Your task to perform on an android device: Set the phone to "Do not disturb". Image 0: 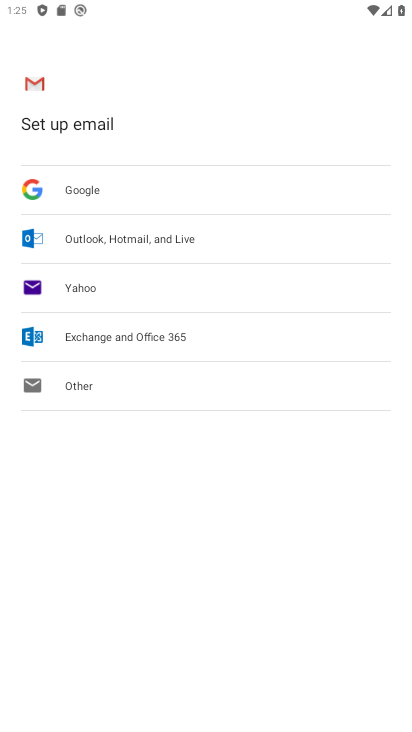
Step 0: press home button
Your task to perform on an android device: Set the phone to "Do not disturb". Image 1: 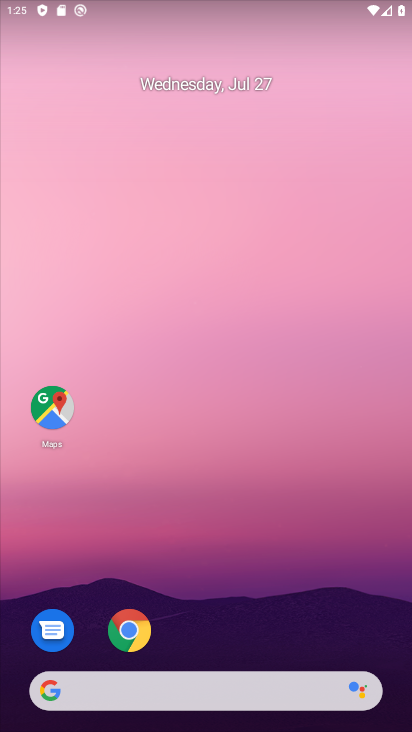
Step 1: drag from (312, 4) to (286, 375)
Your task to perform on an android device: Set the phone to "Do not disturb". Image 2: 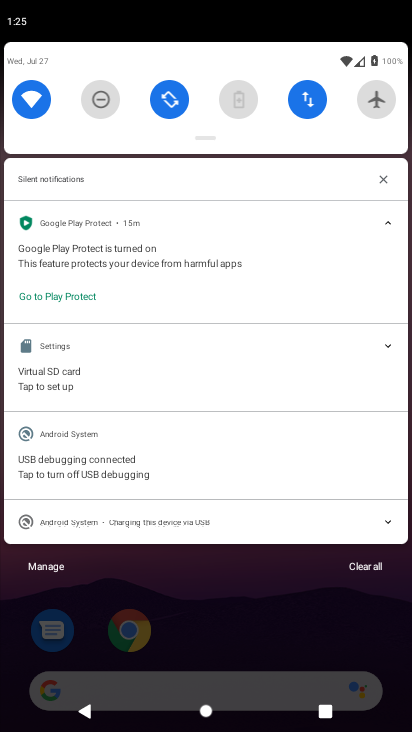
Step 2: drag from (299, 147) to (273, 473)
Your task to perform on an android device: Set the phone to "Do not disturb". Image 3: 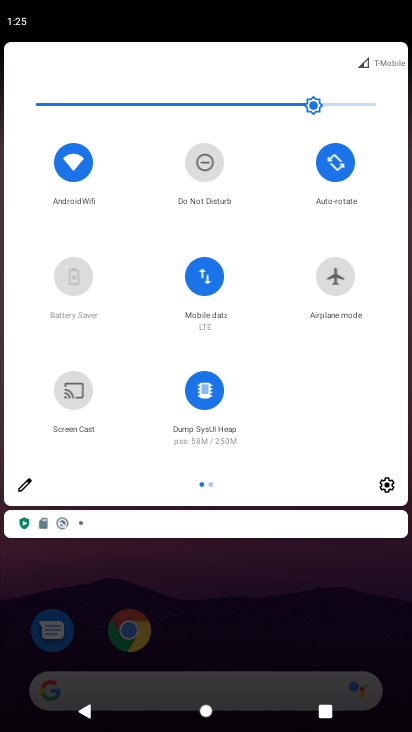
Step 3: click (209, 172)
Your task to perform on an android device: Set the phone to "Do not disturb". Image 4: 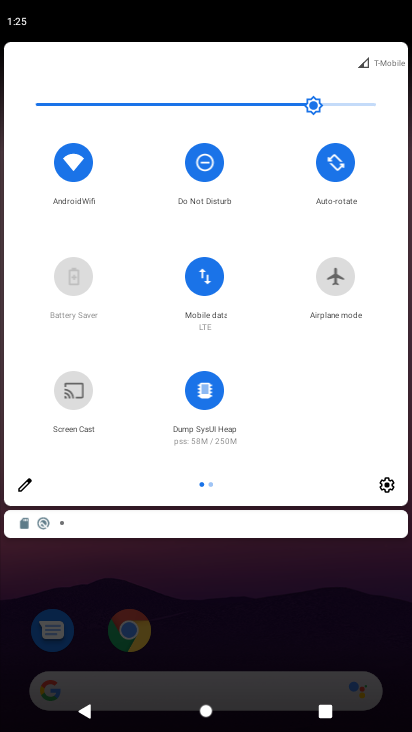
Step 4: click (209, 172)
Your task to perform on an android device: Set the phone to "Do not disturb". Image 5: 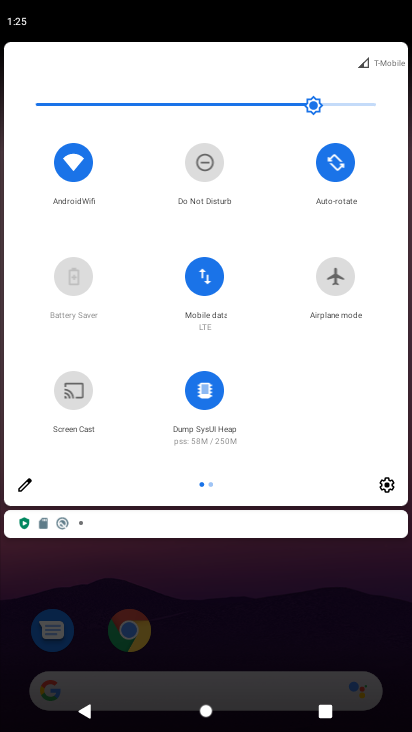
Step 5: click (209, 172)
Your task to perform on an android device: Set the phone to "Do not disturb". Image 6: 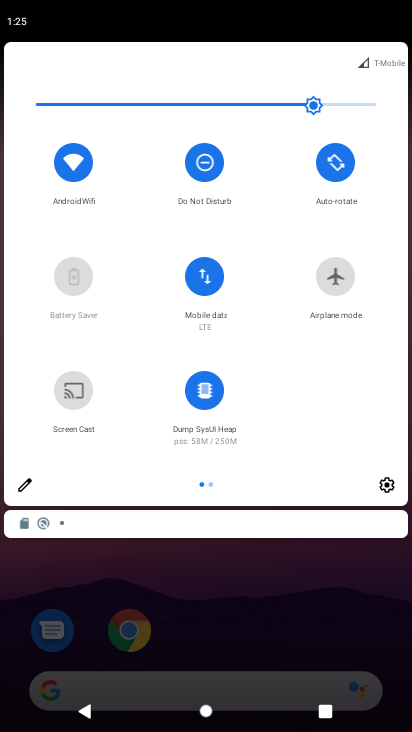
Step 6: task complete